Your task to perform on an android device: turn off data saver in the chrome app Image 0: 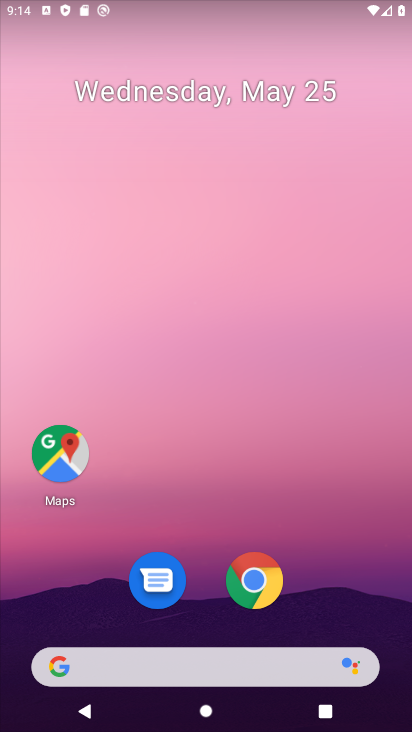
Step 0: click (250, 569)
Your task to perform on an android device: turn off data saver in the chrome app Image 1: 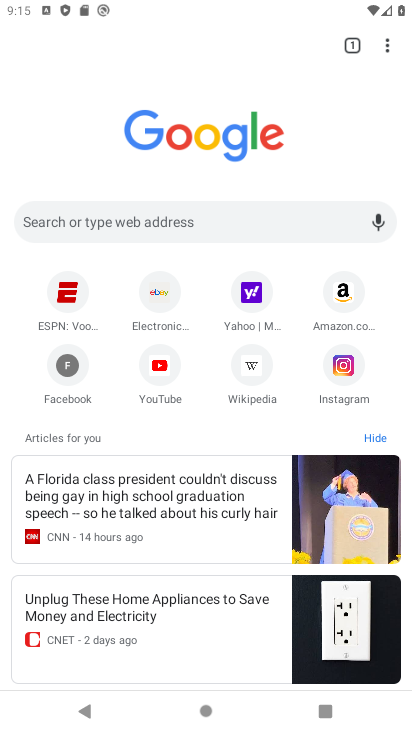
Step 1: click (387, 40)
Your task to perform on an android device: turn off data saver in the chrome app Image 2: 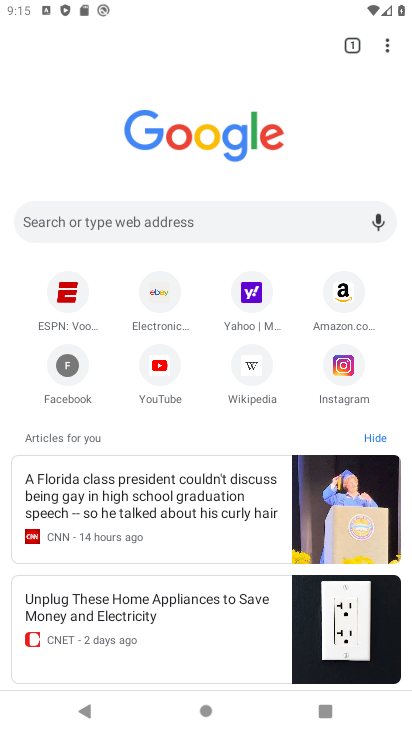
Step 2: click (390, 50)
Your task to perform on an android device: turn off data saver in the chrome app Image 3: 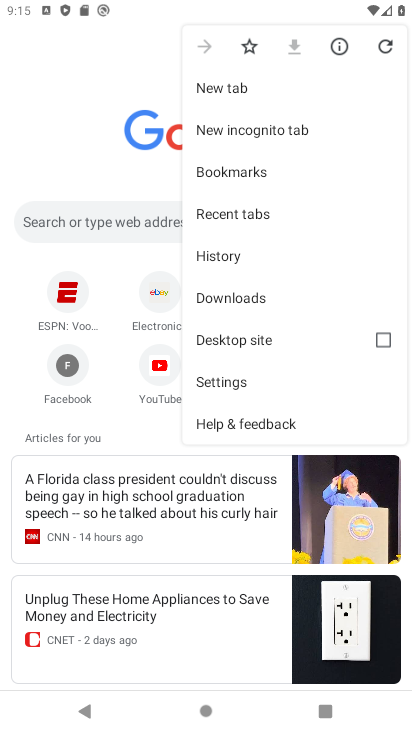
Step 3: click (273, 375)
Your task to perform on an android device: turn off data saver in the chrome app Image 4: 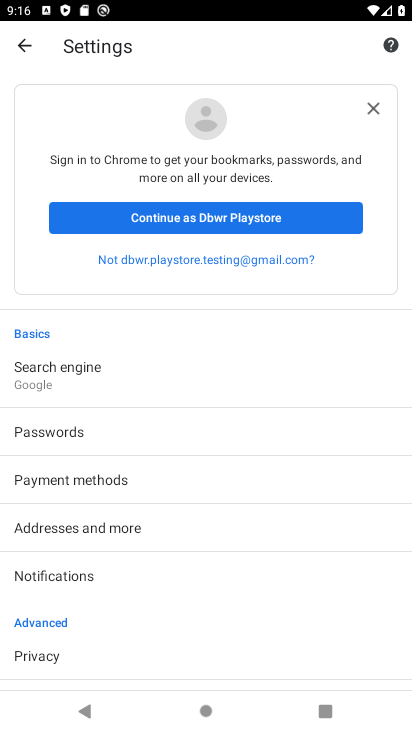
Step 4: drag from (86, 634) to (316, 191)
Your task to perform on an android device: turn off data saver in the chrome app Image 5: 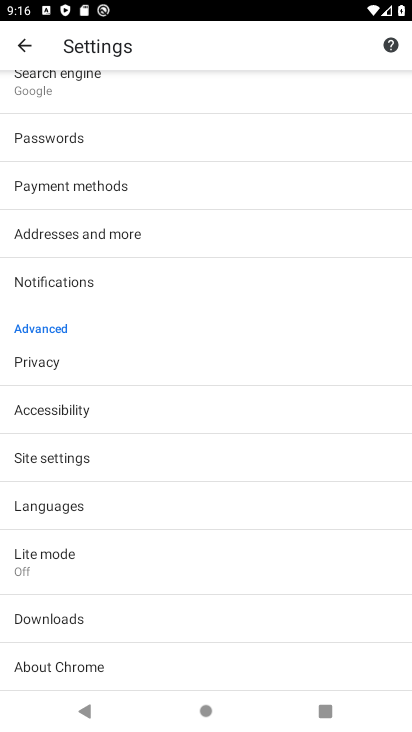
Step 5: click (98, 556)
Your task to perform on an android device: turn off data saver in the chrome app Image 6: 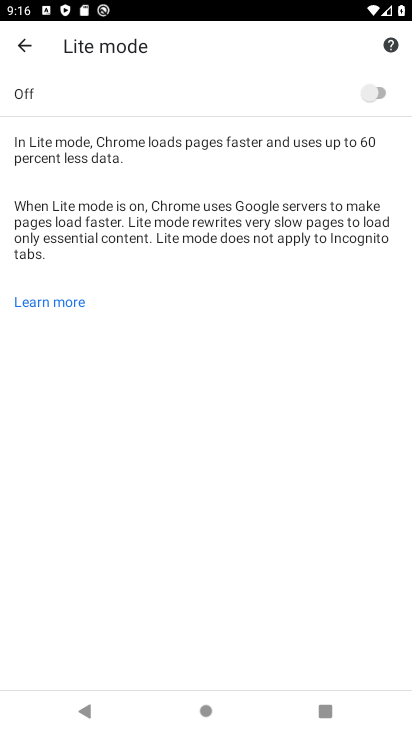
Step 6: task complete